Your task to perform on an android device: toggle priority inbox in the gmail app Image 0: 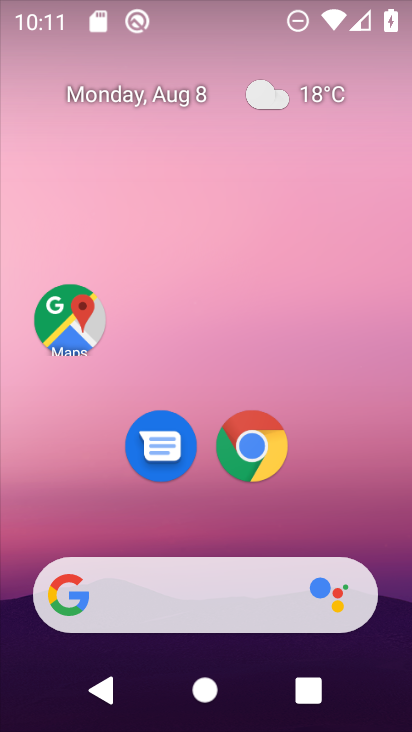
Step 0: drag from (401, 604) to (362, 163)
Your task to perform on an android device: toggle priority inbox in the gmail app Image 1: 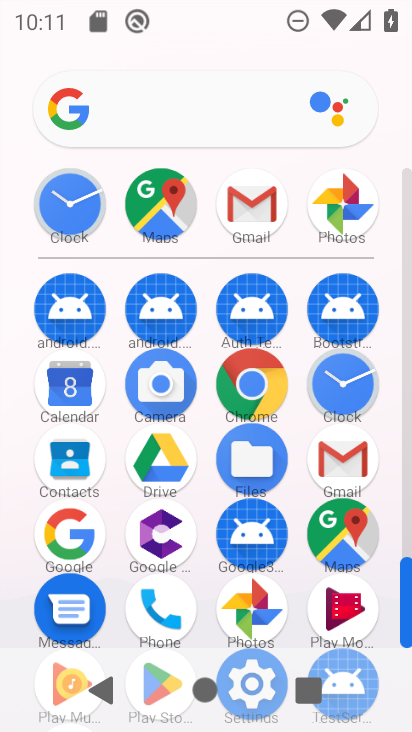
Step 1: click (338, 458)
Your task to perform on an android device: toggle priority inbox in the gmail app Image 2: 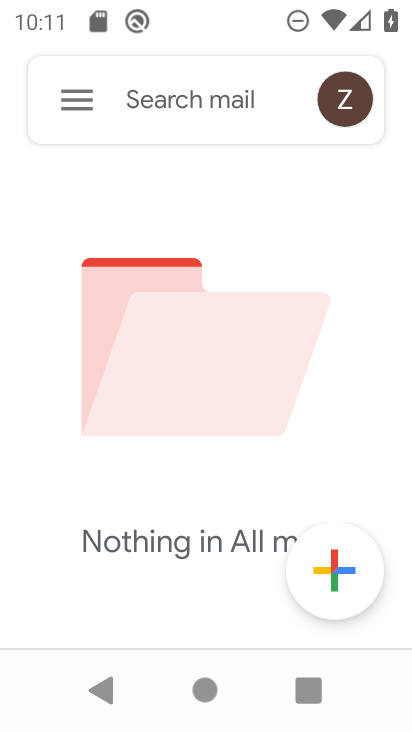
Step 2: click (68, 104)
Your task to perform on an android device: toggle priority inbox in the gmail app Image 3: 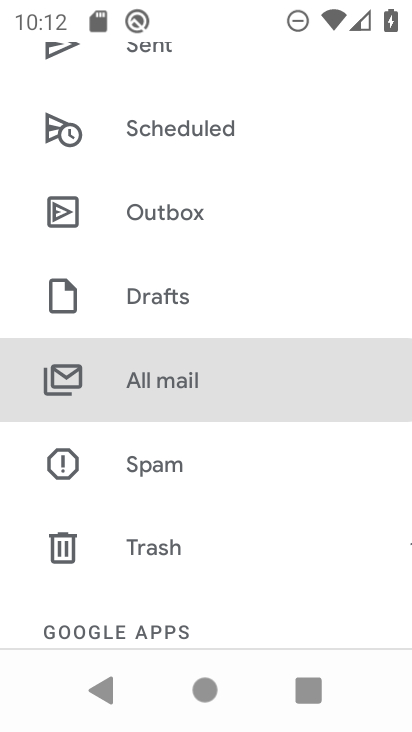
Step 3: drag from (215, 572) to (213, 280)
Your task to perform on an android device: toggle priority inbox in the gmail app Image 4: 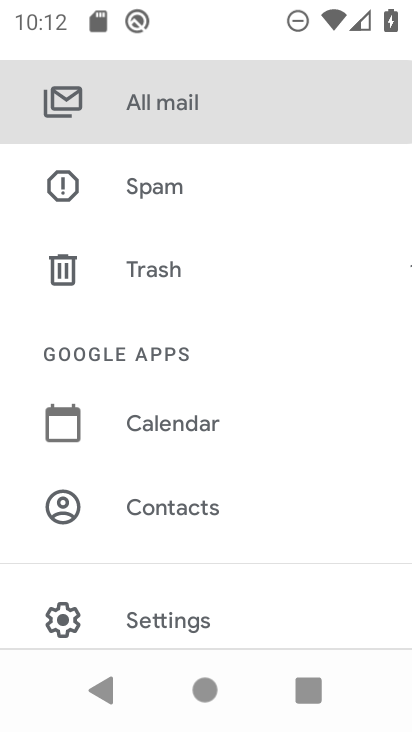
Step 4: drag from (261, 591) to (275, 231)
Your task to perform on an android device: toggle priority inbox in the gmail app Image 5: 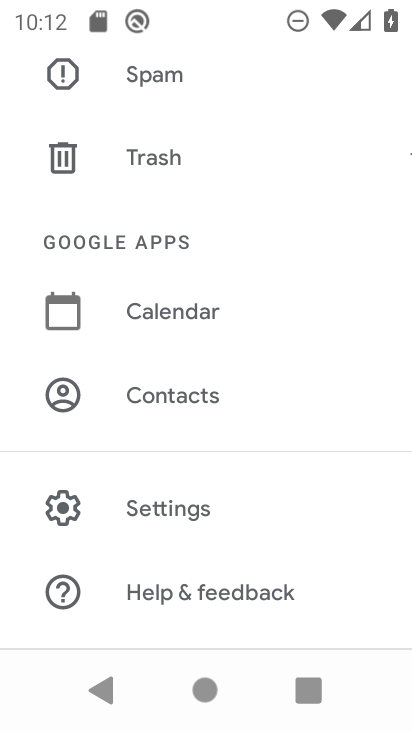
Step 5: click (172, 490)
Your task to perform on an android device: toggle priority inbox in the gmail app Image 6: 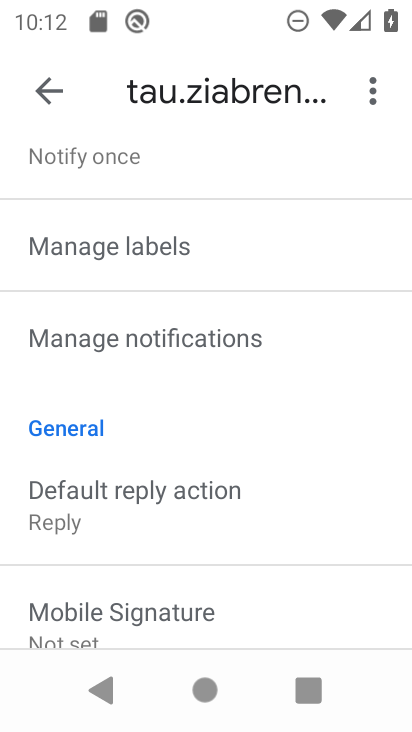
Step 6: drag from (261, 286) to (277, 542)
Your task to perform on an android device: toggle priority inbox in the gmail app Image 7: 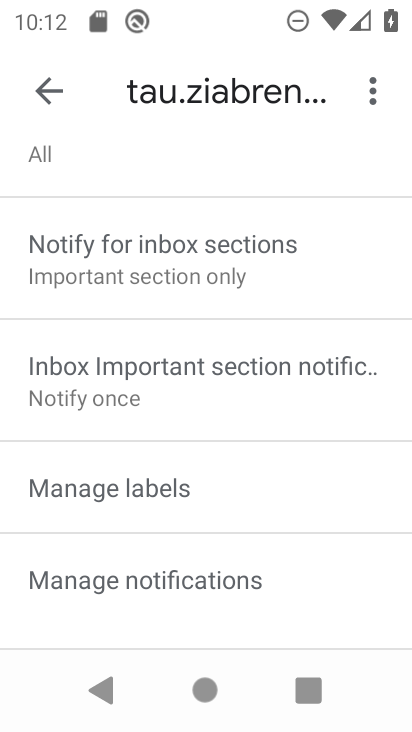
Step 7: drag from (336, 236) to (315, 510)
Your task to perform on an android device: toggle priority inbox in the gmail app Image 8: 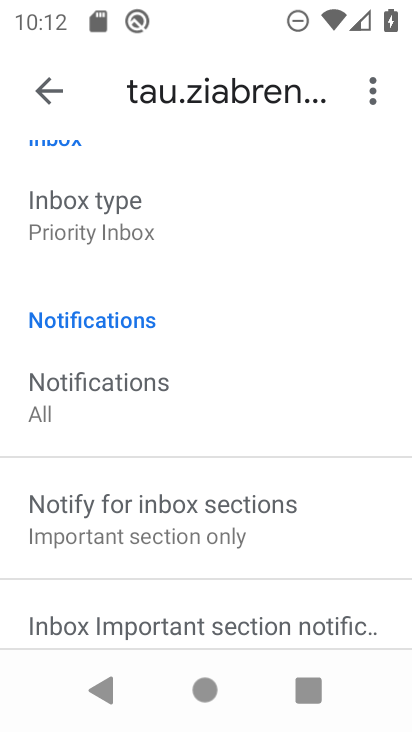
Step 8: click (66, 203)
Your task to perform on an android device: toggle priority inbox in the gmail app Image 9: 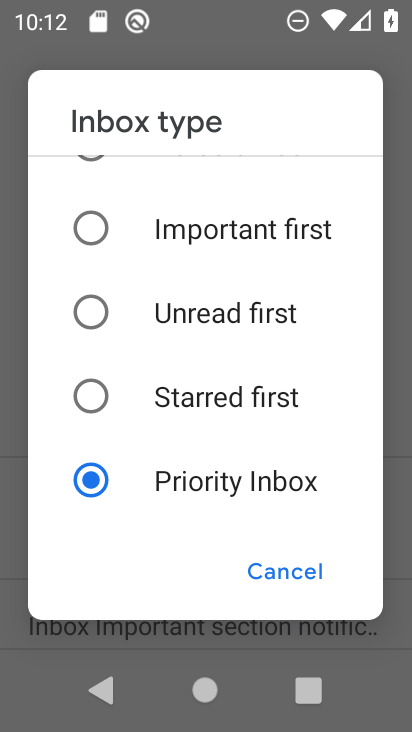
Step 9: click (96, 231)
Your task to perform on an android device: toggle priority inbox in the gmail app Image 10: 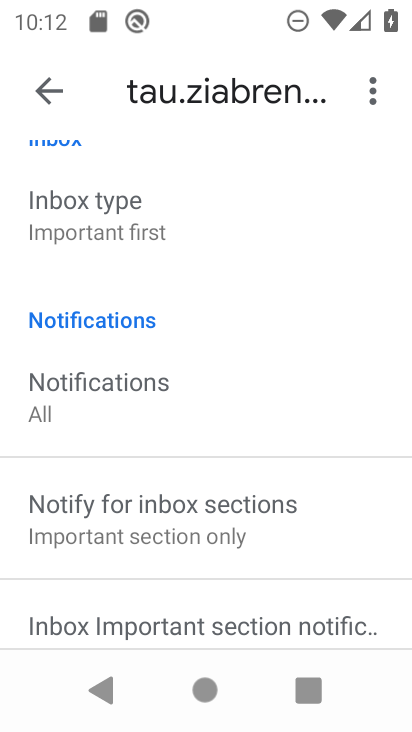
Step 10: task complete